Your task to perform on an android device: Open the phone app and click the voicemail tab. Image 0: 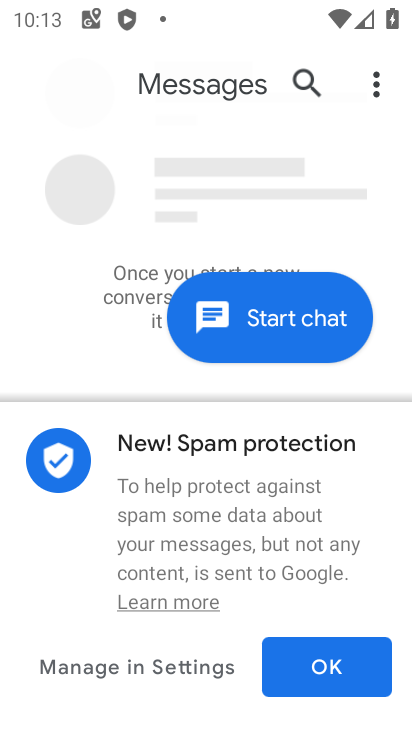
Step 0: press home button
Your task to perform on an android device: Open the phone app and click the voicemail tab. Image 1: 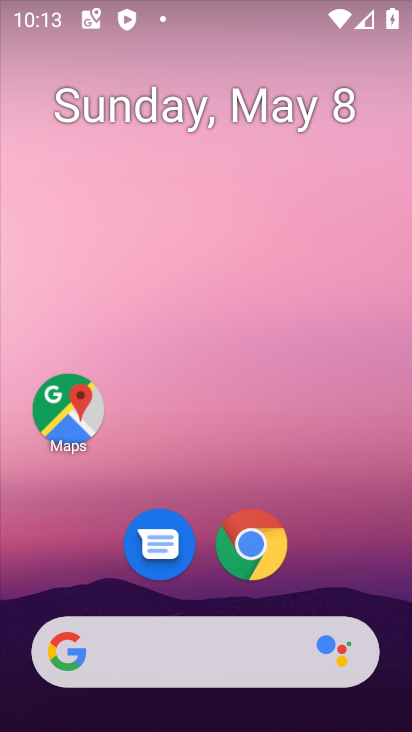
Step 1: drag from (364, 566) to (280, 18)
Your task to perform on an android device: Open the phone app and click the voicemail tab. Image 2: 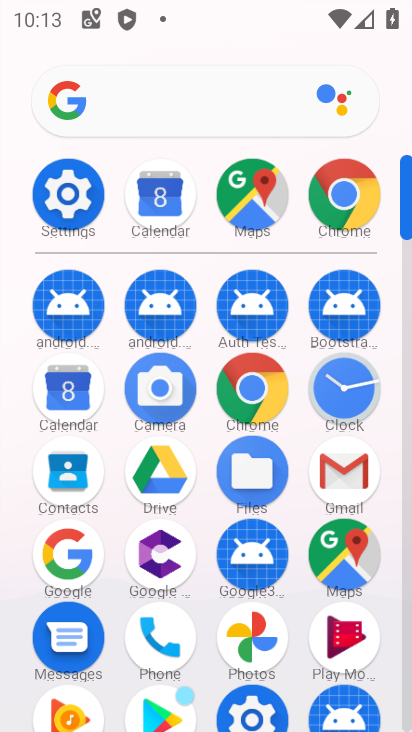
Step 2: click (407, 602)
Your task to perform on an android device: Open the phone app and click the voicemail tab. Image 3: 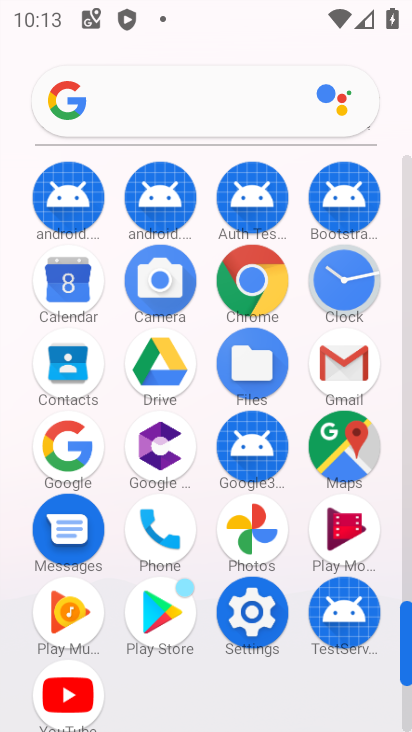
Step 3: click (154, 557)
Your task to perform on an android device: Open the phone app and click the voicemail tab. Image 4: 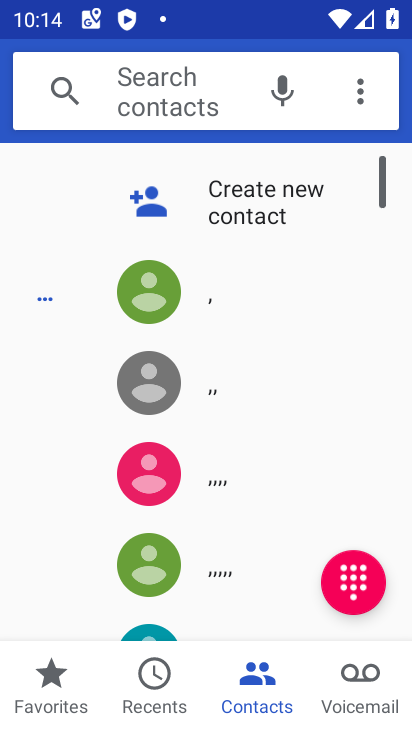
Step 4: click (352, 696)
Your task to perform on an android device: Open the phone app and click the voicemail tab. Image 5: 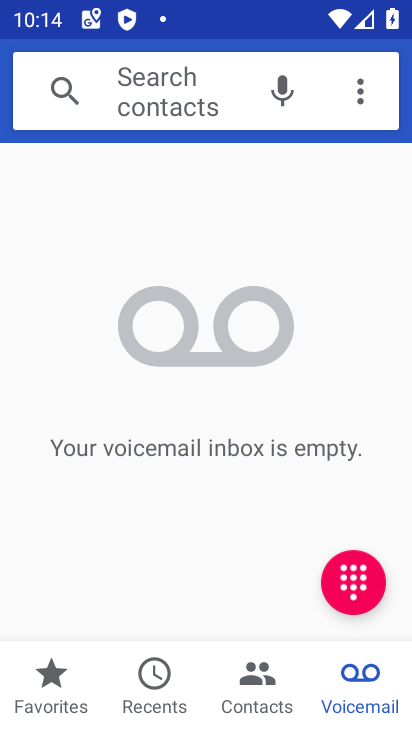
Step 5: task complete